Your task to perform on an android device: Open ESPN.com Image 0: 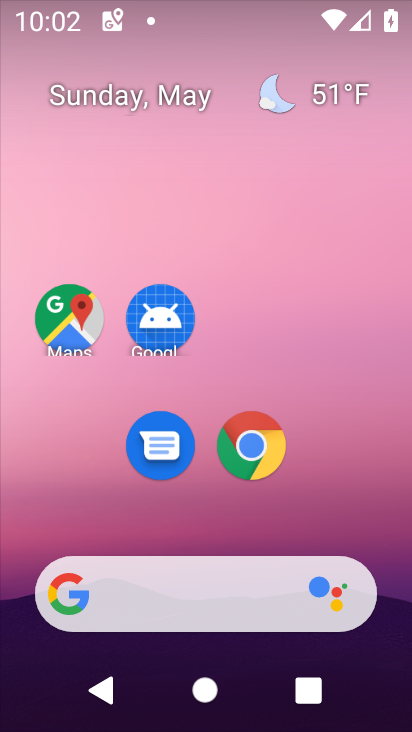
Step 0: click (255, 445)
Your task to perform on an android device: Open ESPN.com Image 1: 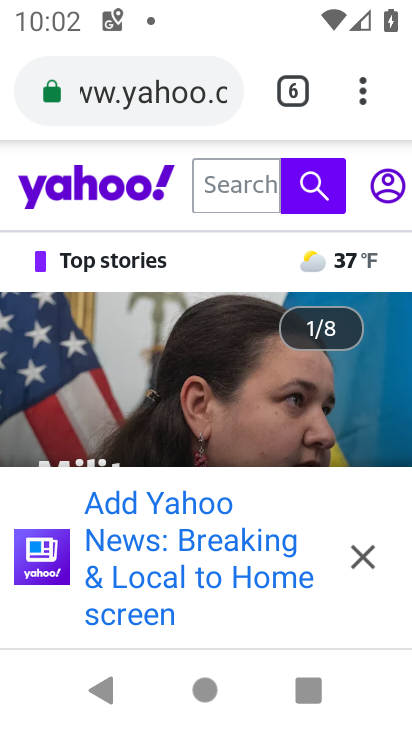
Step 1: click (364, 89)
Your task to perform on an android device: Open ESPN.com Image 2: 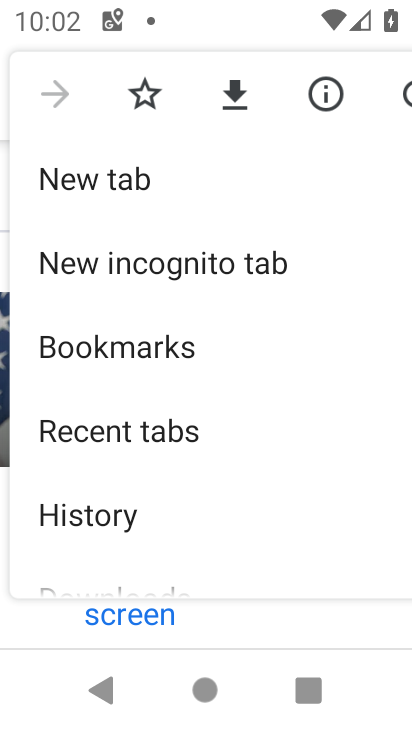
Step 2: click (90, 177)
Your task to perform on an android device: Open ESPN.com Image 3: 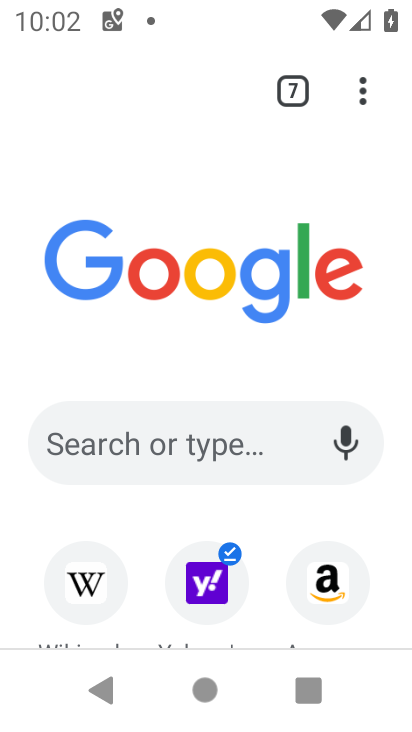
Step 3: click (152, 443)
Your task to perform on an android device: Open ESPN.com Image 4: 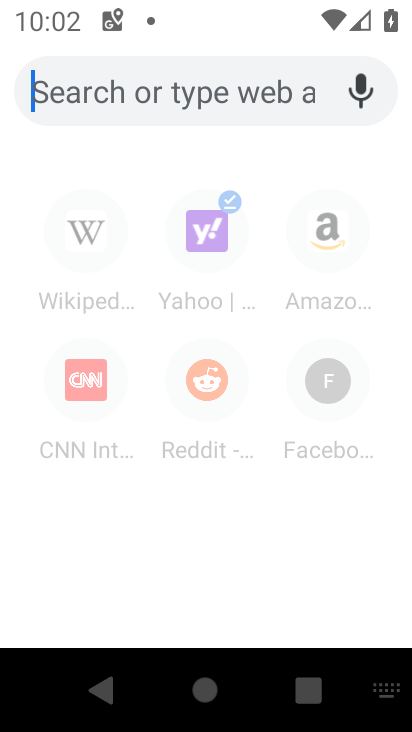
Step 4: type "espn.com"
Your task to perform on an android device: Open ESPN.com Image 5: 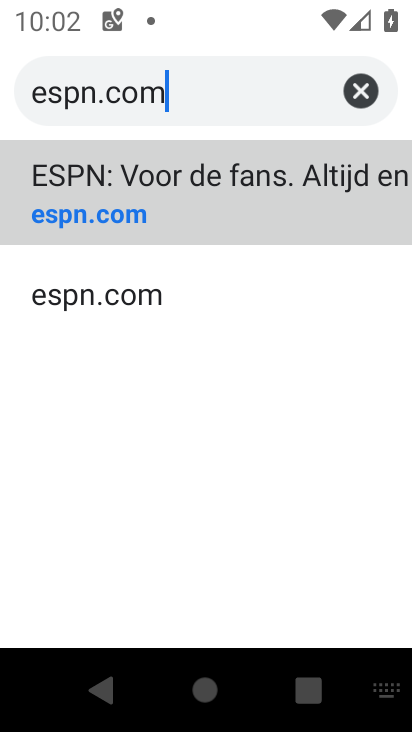
Step 5: click (100, 291)
Your task to perform on an android device: Open ESPN.com Image 6: 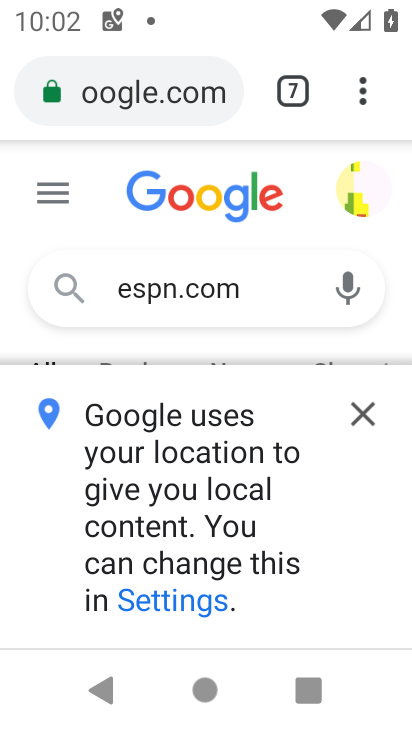
Step 6: task complete